Your task to perform on an android device: When is my next meeting? Image 0: 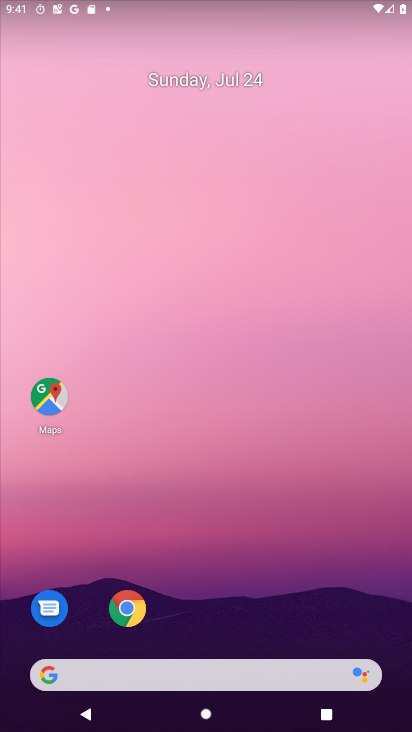
Step 0: click (156, 91)
Your task to perform on an android device: When is my next meeting? Image 1: 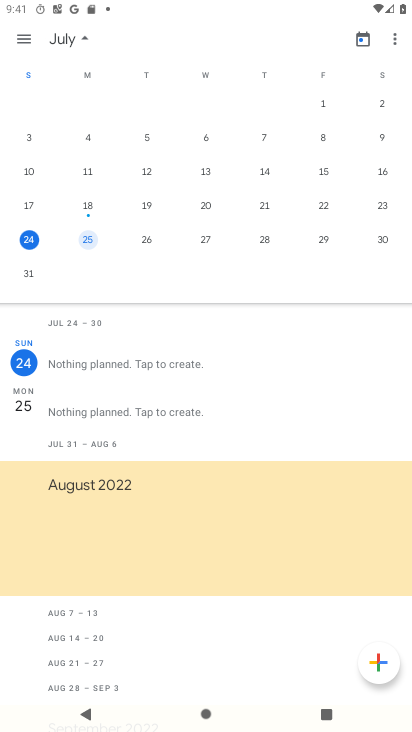
Step 1: click (25, 46)
Your task to perform on an android device: When is my next meeting? Image 2: 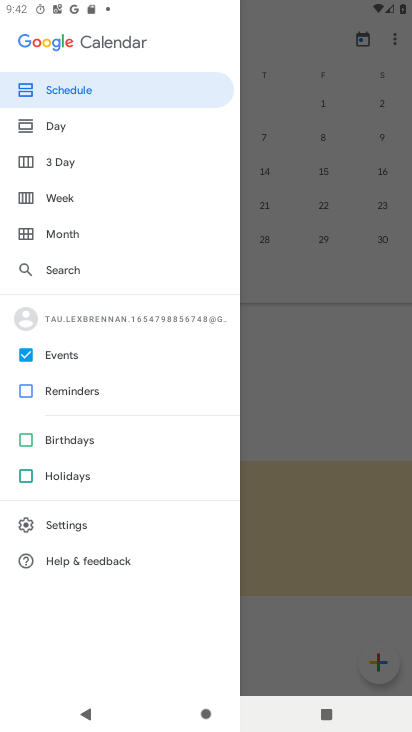
Step 2: task complete